Your task to perform on an android device: Open Chrome and go to the settings page Image 0: 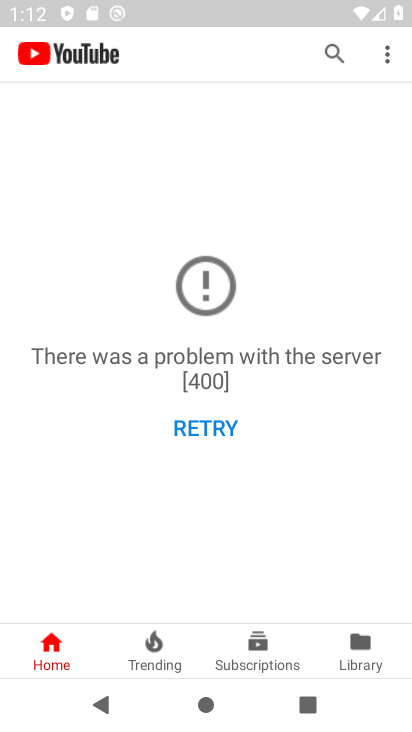
Step 0: press home button
Your task to perform on an android device: Open Chrome and go to the settings page Image 1: 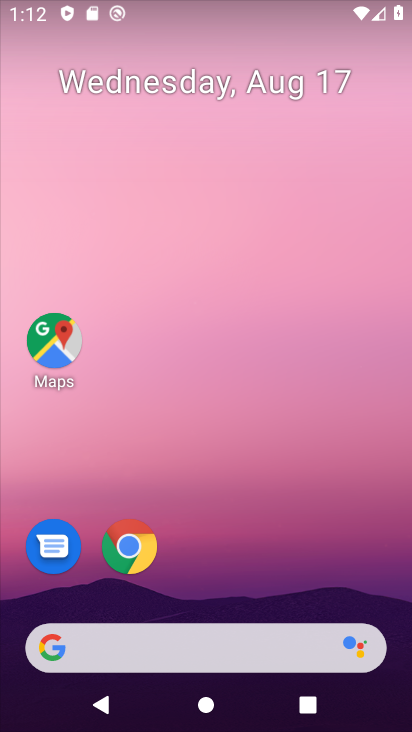
Step 1: click (87, 543)
Your task to perform on an android device: Open Chrome and go to the settings page Image 2: 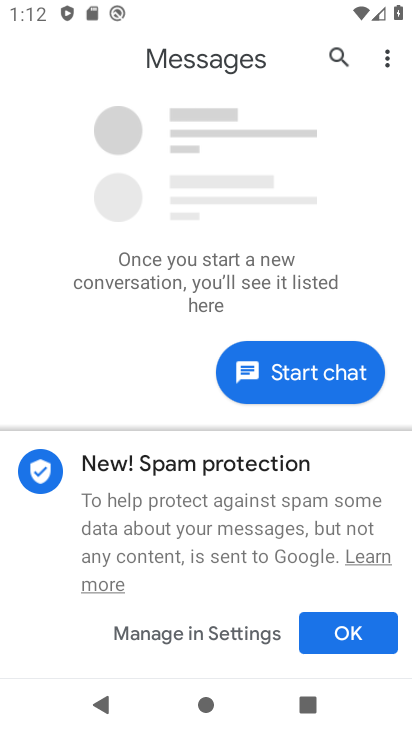
Step 2: press home button
Your task to perform on an android device: Open Chrome and go to the settings page Image 3: 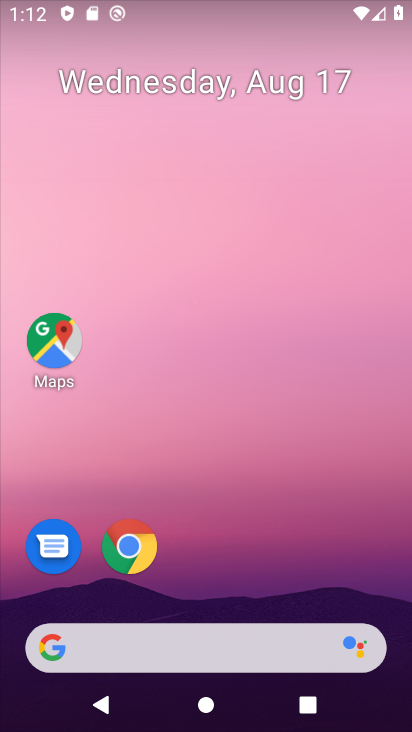
Step 3: click (127, 545)
Your task to perform on an android device: Open Chrome and go to the settings page Image 4: 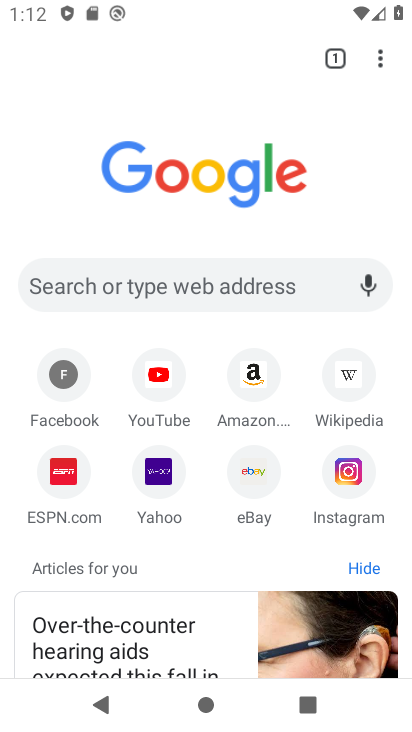
Step 4: click (382, 55)
Your task to perform on an android device: Open Chrome and go to the settings page Image 5: 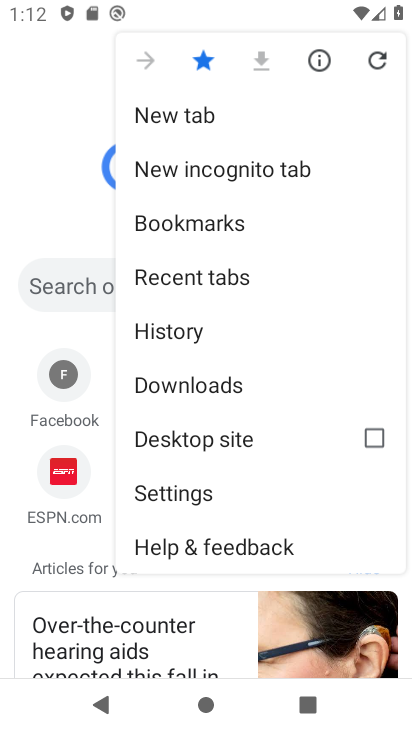
Step 5: click (166, 489)
Your task to perform on an android device: Open Chrome and go to the settings page Image 6: 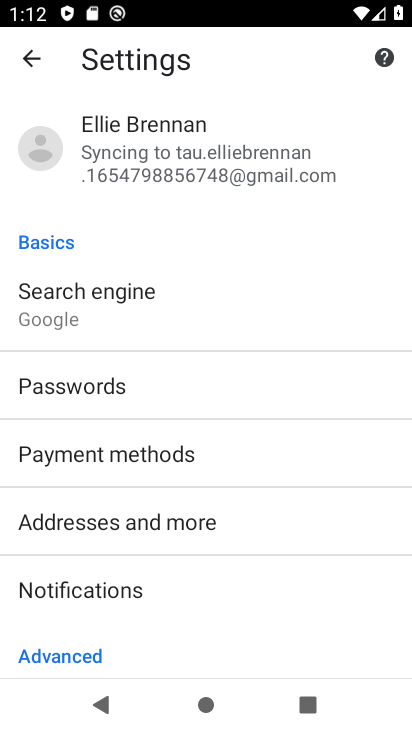
Step 6: task complete